Your task to perform on an android device: What's the weather today? Image 0: 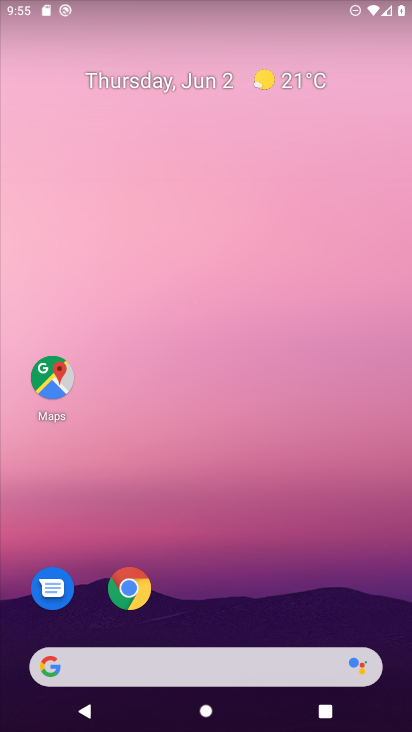
Step 0: drag from (240, 592) to (326, 143)
Your task to perform on an android device: What's the weather today? Image 1: 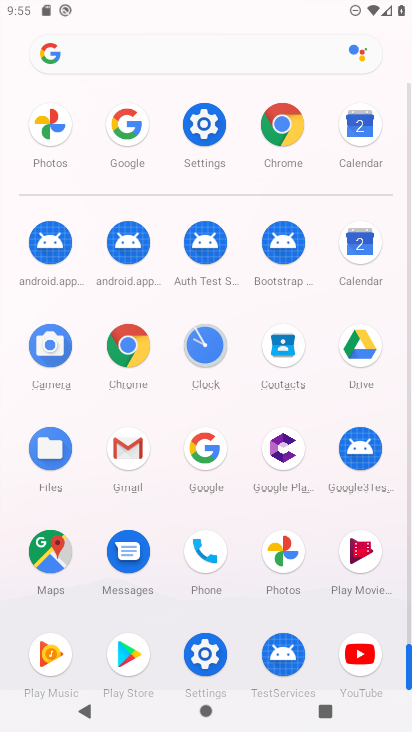
Step 1: click (212, 470)
Your task to perform on an android device: What's the weather today? Image 2: 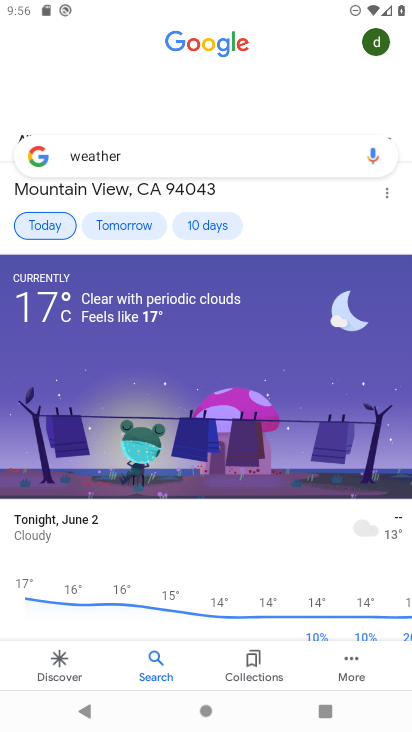
Step 2: task complete